Your task to perform on an android device: toggle javascript in the chrome app Image 0: 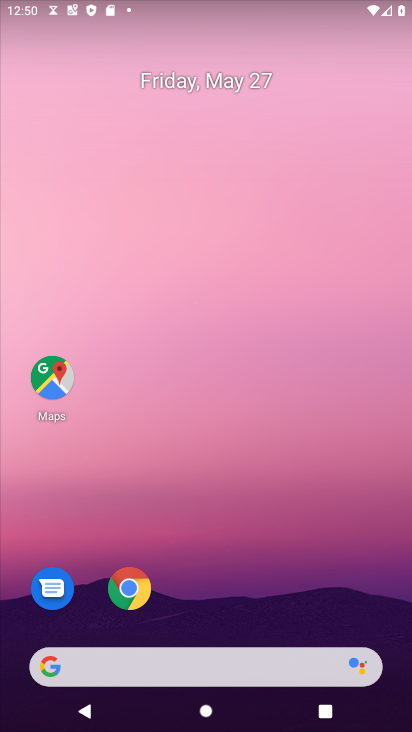
Step 0: press home button
Your task to perform on an android device: toggle javascript in the chrome app Image 1: 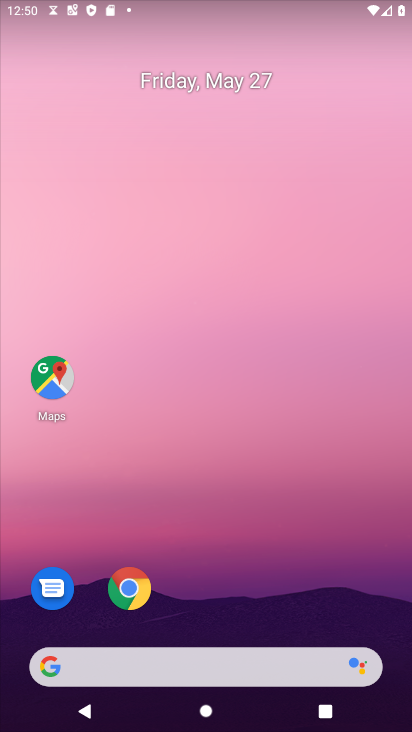
Step 1: click (126, 583)
Your task to perform on an android device: toggle javascript in the chrome app Image 2: 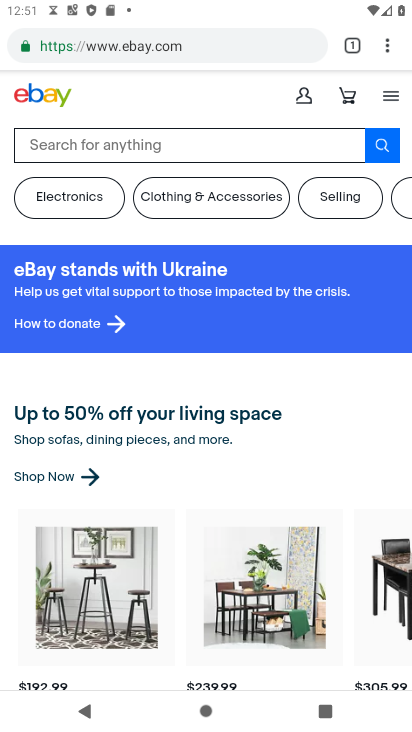
Step 2: click (386, 48)
Your task to perform on an android device: toggle javascript in the chrome app Image 3: 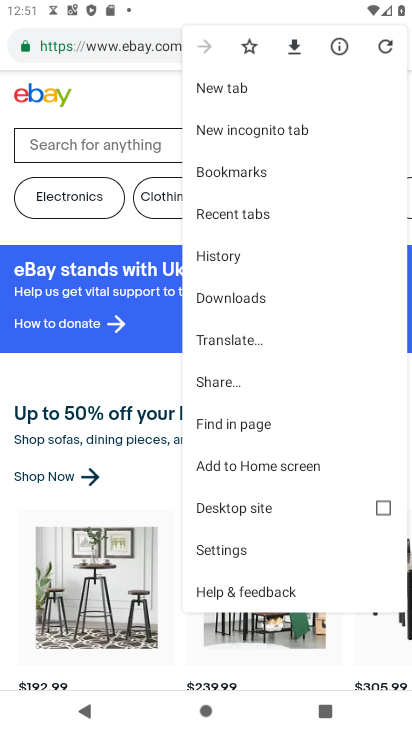
Step 3: click (258, 548)
Your task to perform on an android device: toggle javascript in the chrome app Image 4: 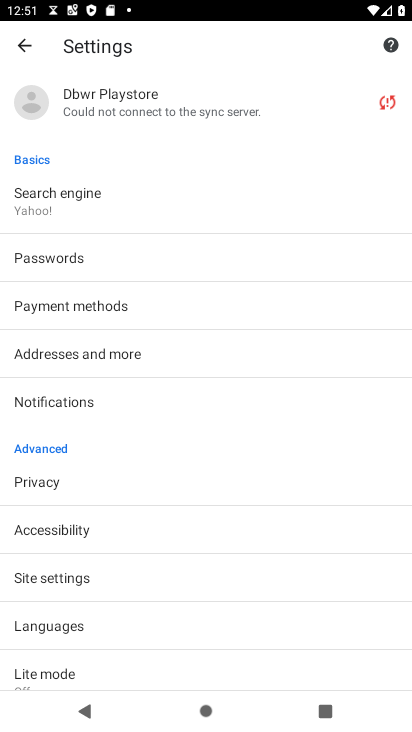
Step 4: click (107, 577)
Your task to perform on an android device: toggle javascript in the chrome app Image 5: 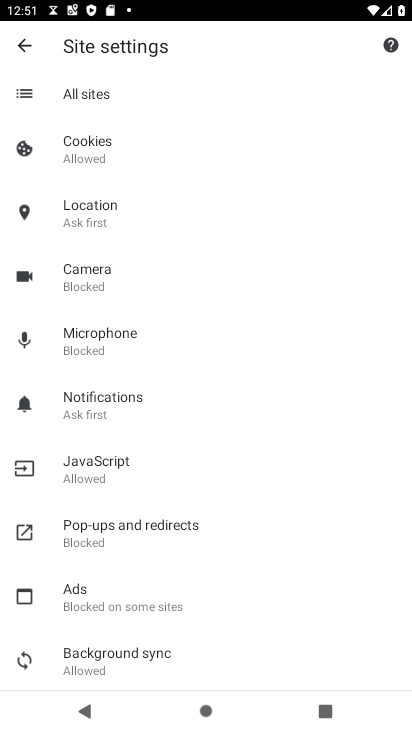
Step 5: click (130, 465)
Your task to perform on an android device: toggle javascript in the chrome app Image 6: 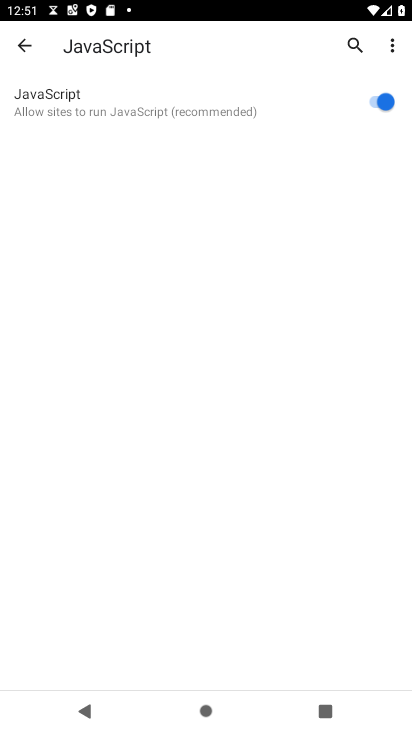
Step 6: click (372, 100)
Your task to perform on an android device: toggle javascript in the chrome app Image 7: 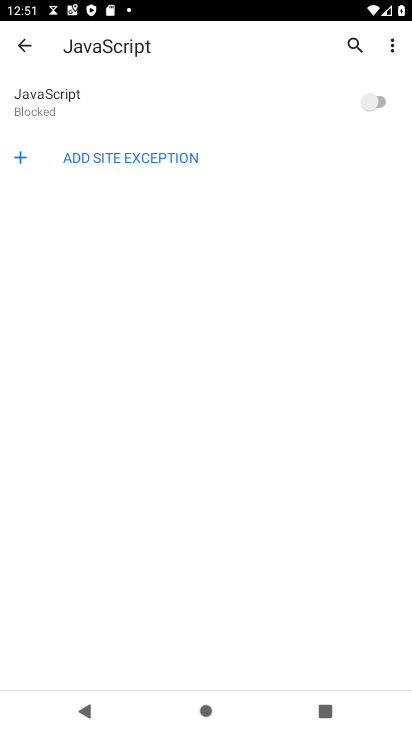
Step 7: task complete